Your task to perform on an android device: Search for vegetarian restaurants on Maps Image 0: 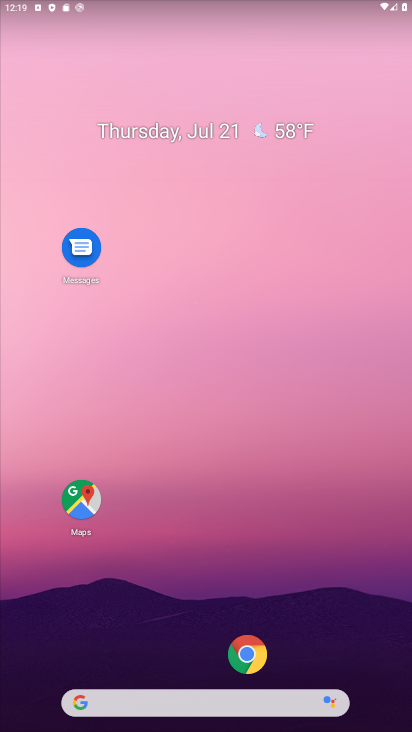
Step 0: click (71, 517)
Your task to perform on an android device: Search for vegetarian restaurants on Maps Image 1: 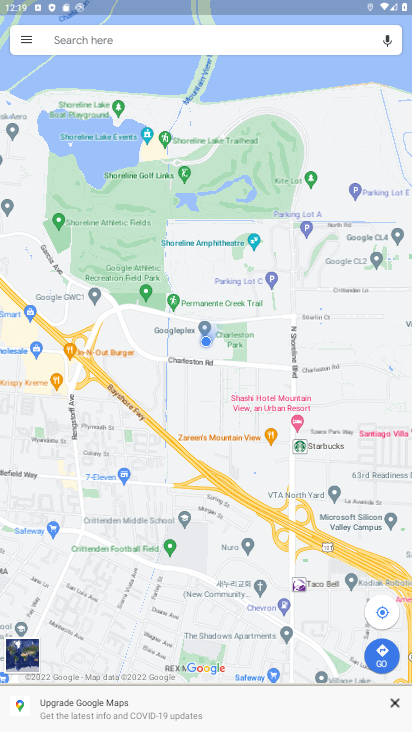
Step 1: click (116, 35)
Your task to perform on an android device: Search for vegetarian restaurants on Maps Image 2: 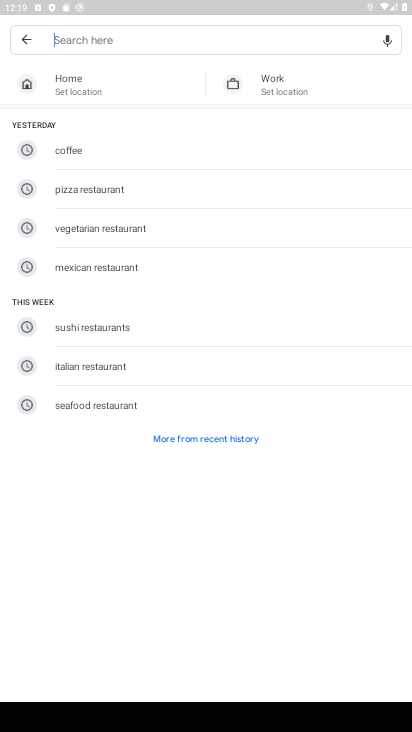
Step 2: type "vegeterian restaurant"
Your task to perform on an android device: Search for vegetarian restaurants on Maps Image 3: 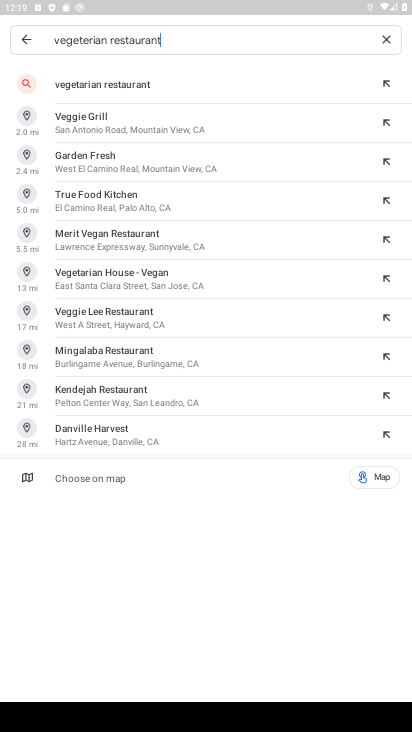
Step 3: task complete